Your task to perform on an android device: turn off notifications settings in the gmail app Image 0: 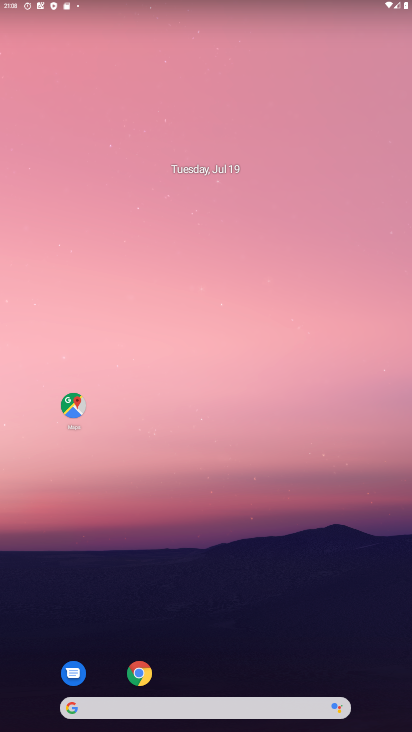
Step 0: drag from (223, 211) to (153, 5)
Your task to perform on an android device: turn off notifications settings in the gmail app Image 1: 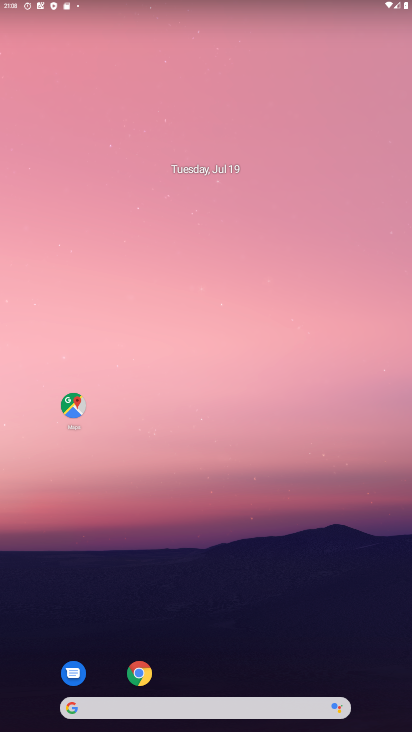
Step 1: drag from (208, 544) to (195, 27)
Your task to perform on an android device: turn off notifications settings in the gmail app Image 2: 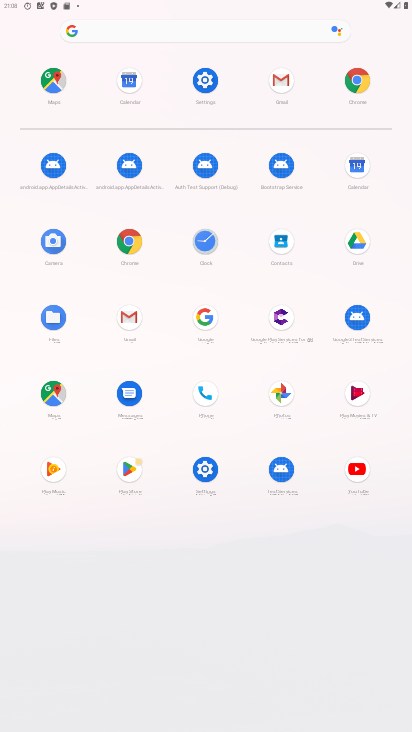
Step 2: click (130, 325)
Your task to perform on an android device: turn off notifications settings in the gmail app Image 3: 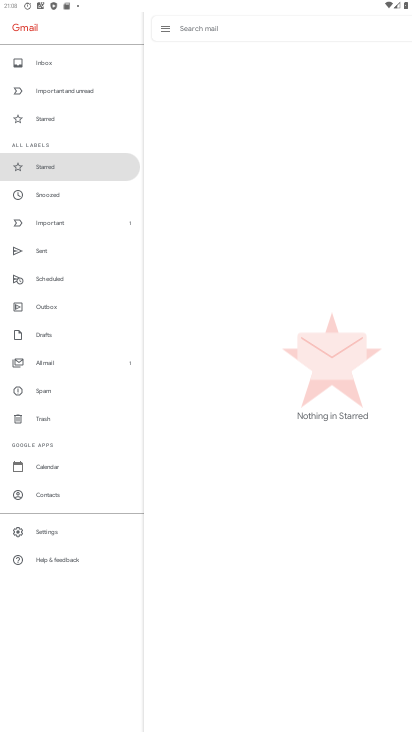
Step 3: click (41, 532)
Your task to perform on an android device: turn off notifications settings in the gmail app Image 4: 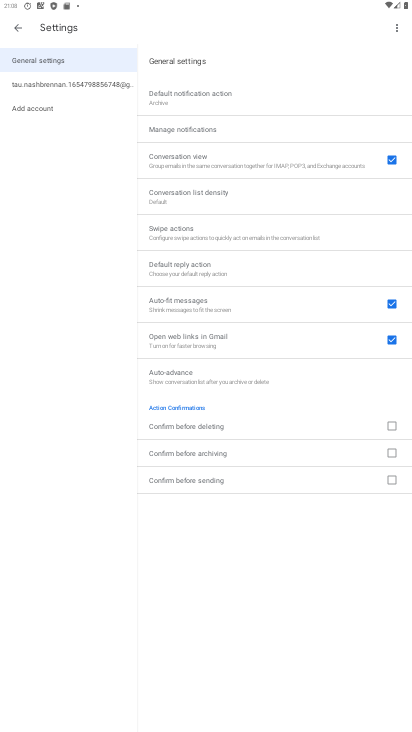
Step 4: click (201, 126)
Your task to perform on an android device: turn off notifications settings in the gmail app Image 5: 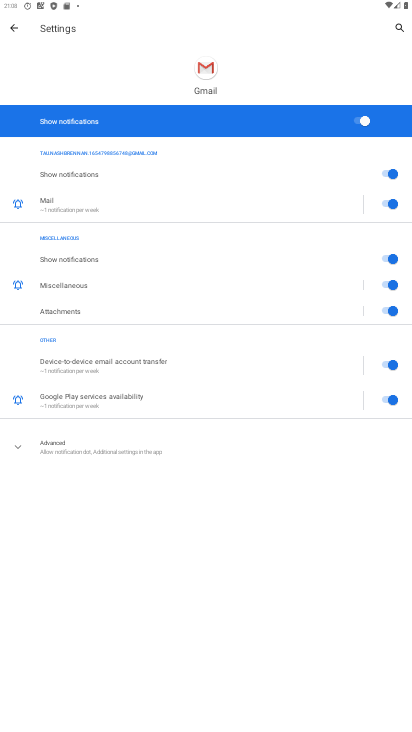
Step 5: click (328, 125)
Your task to perform on an android device: turn off notifications settings in the gmail app Image 6: 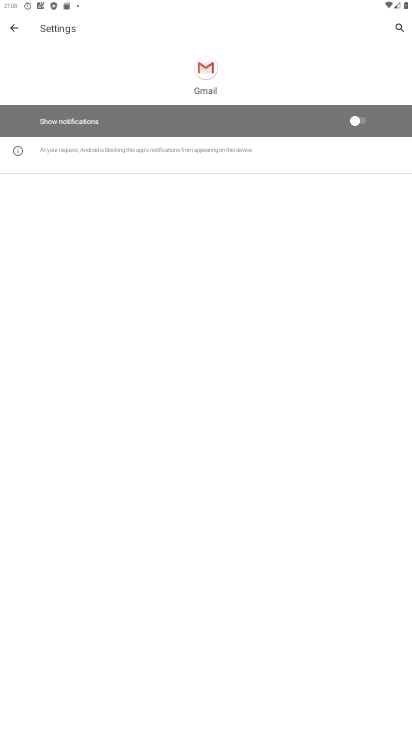
Step 6: task complete